Your task to perform on an android device: make emails show in primary in the gmail app Image 0: 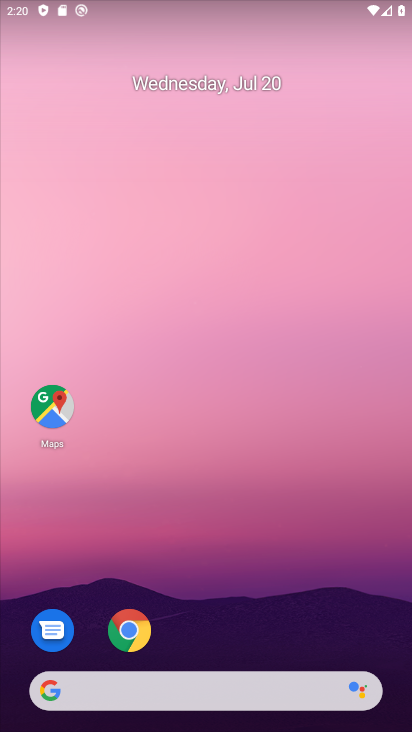
Step 0: drag from (320, 591) to (309, 88)
Your task to perform on an android device: make emails show in primary in the gmail app Image 1: 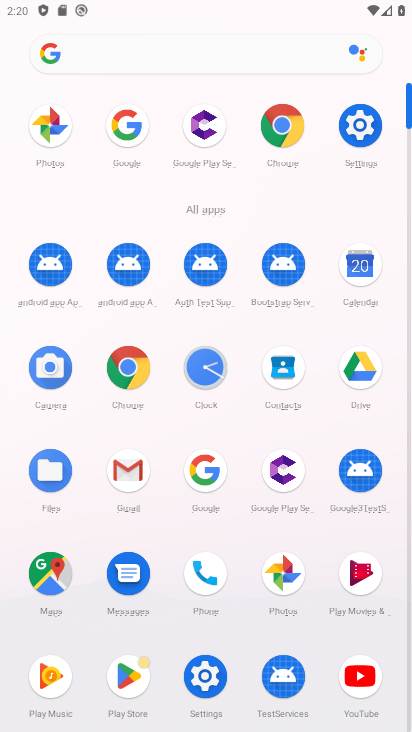
Step 1: click (131, 464)
Your task to perform on an android device: make emails show in primary in the gmail app Image 2: 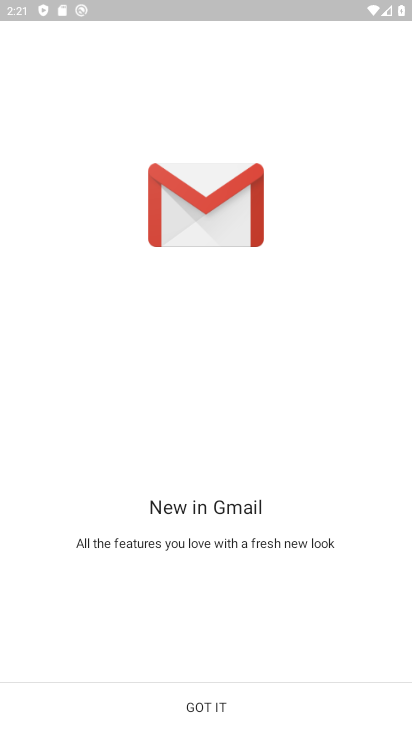
Step 2: click (276, 686)
Your task to perform on an android device: make emails show in primary in the gmail app Image 3: 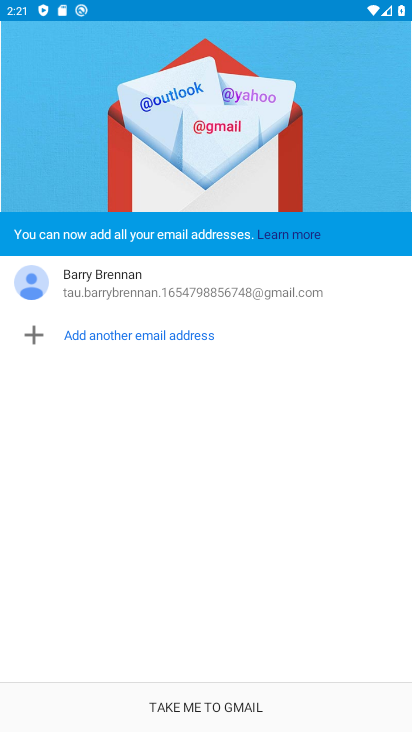
Step 3: click (277, 696)
Your task to perform on an android device: make emails show in primary in the gmail app Image 4: 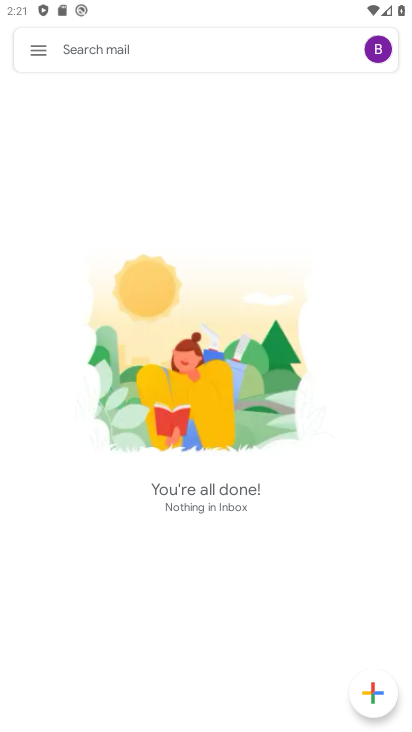
Step 4: click (42, 48)
Your task to perform on an android device: make emails show in primary in the gmail app Image 5: 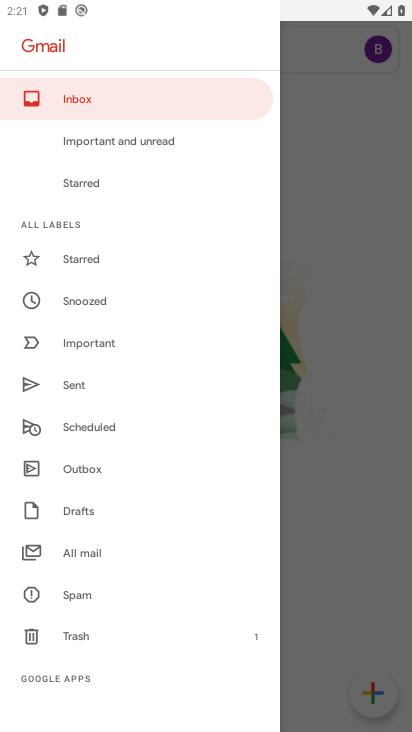
Step 5: drag from (102, 655) to (50, 117)
Your task to perform on an android device: make emails show in primary in the gmail app Image 6: 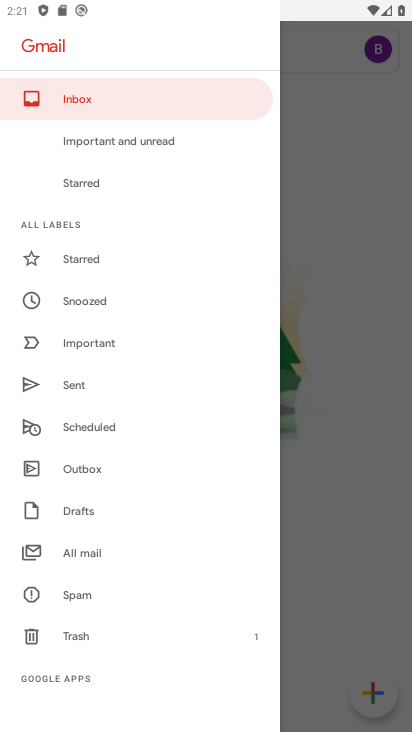
Step 6: drag from (54, 674) to (59, 24)
Your task to perform on an android device: make emails show in primary in the gmail app Image 7: 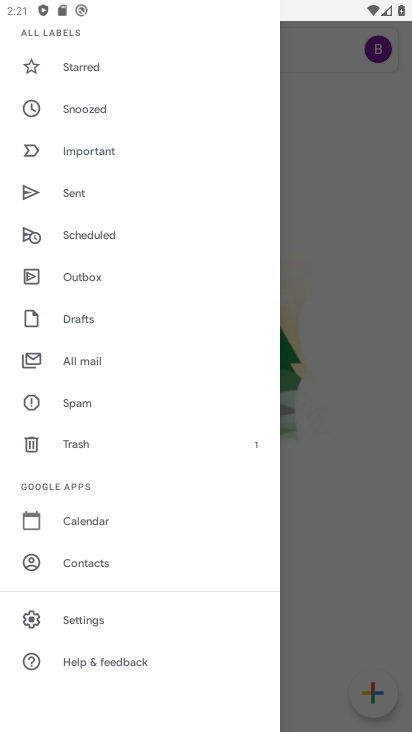
Step 7: click (100, 617)
Your task to perform on an android device: make emails show in primary in the gmail app Image 8: 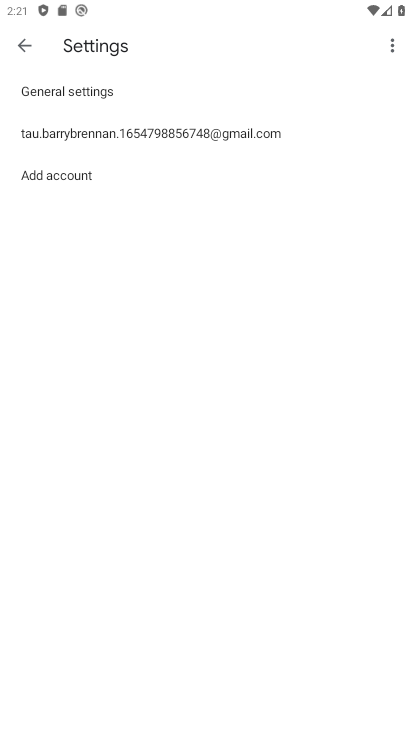
Step 8: click (231, 141)
Your task to perform on an android device: make emails show in primary in the gmail app Image 9: 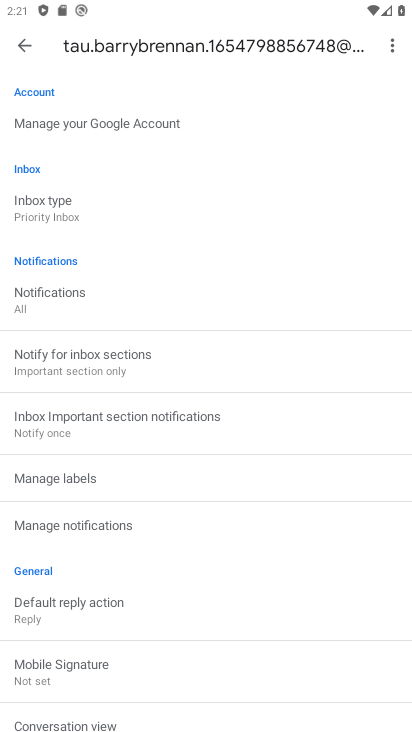
Step 9: click (135, 215)
Your task to perform on an android device: make emails show in primary in the gmail app Image 10: 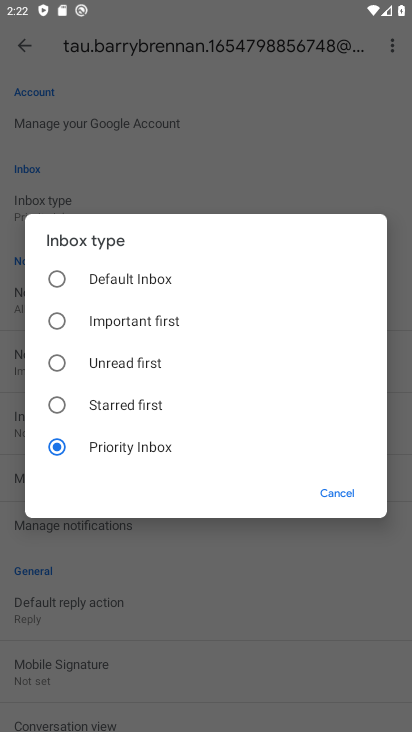
Step 10: click (149, 274)
Your task to perform on an android device: make emails show in primary in the gmail app Image 11: 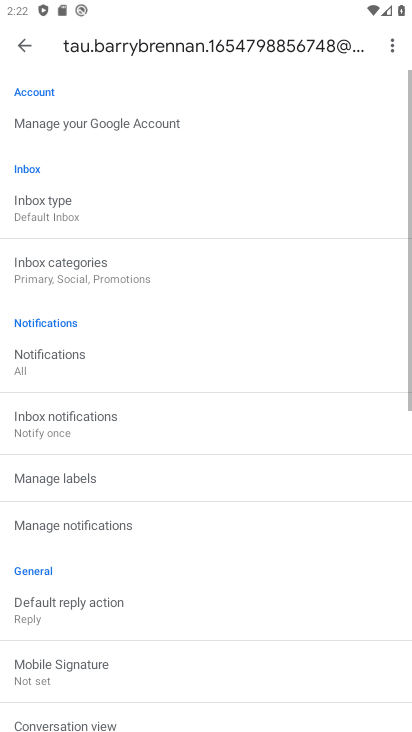
Step 11: task complete